Your task to perform on an android device: Go to network settings Image 0: 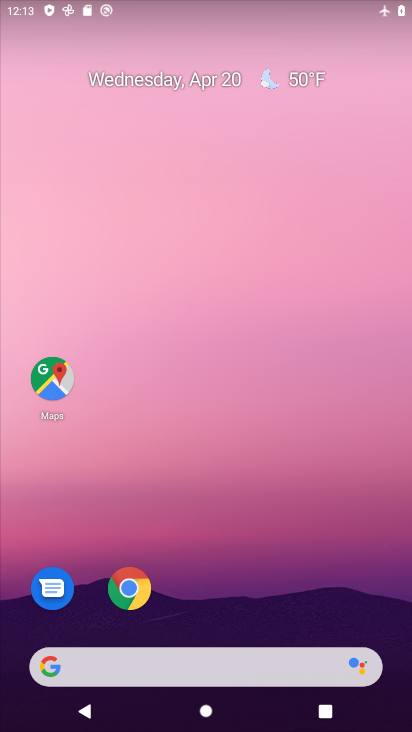
Step 0: drag from (193, 622) to (226, 171)
Your task to perform on an android device: Go to network settings Image 1: 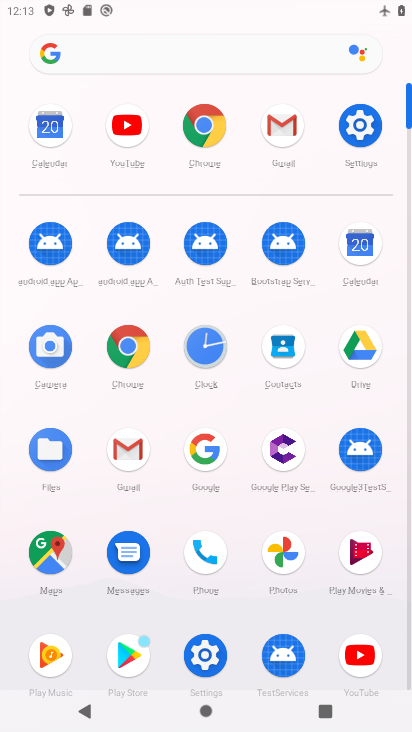
Step 1: click (362, 120)
Your task to perform on an android device: Go to network settings Image 2: 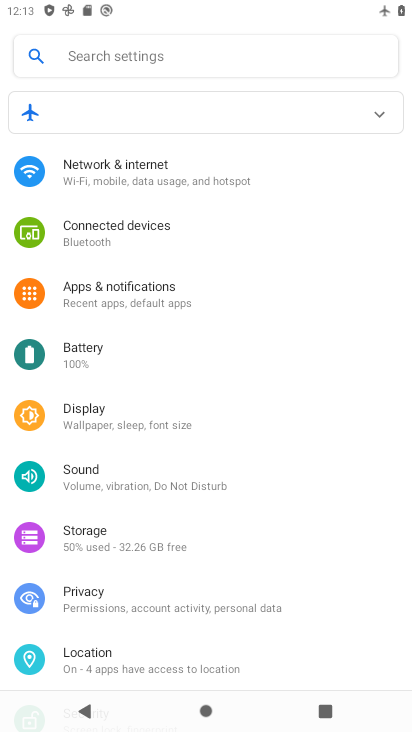
Step 2: click (176, 171)
Your task to perform on an android device: Go to network settings Image 3: 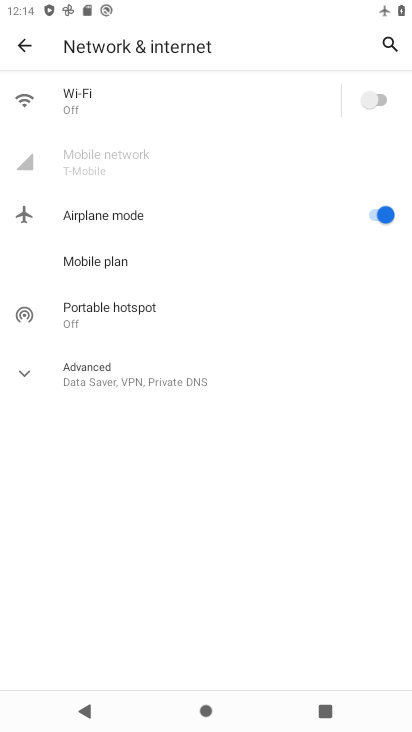
Step 3: click (48, 372)
Your task to perform on an android device: Go to network settings Image 4: 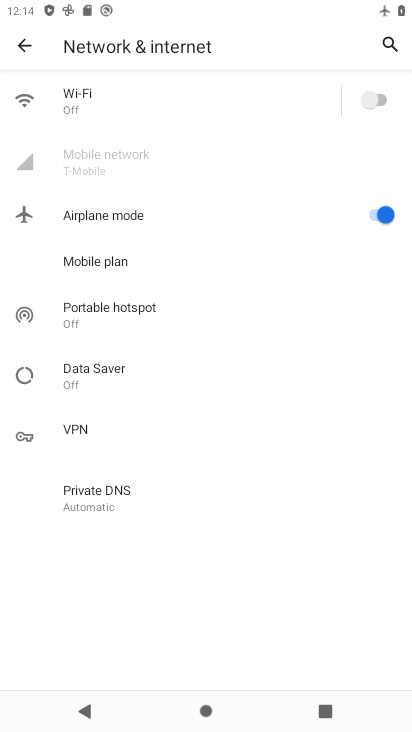
Step 4: task complete